Your task to perform on an android device: What's the news in Puerto Rico? Image 0: 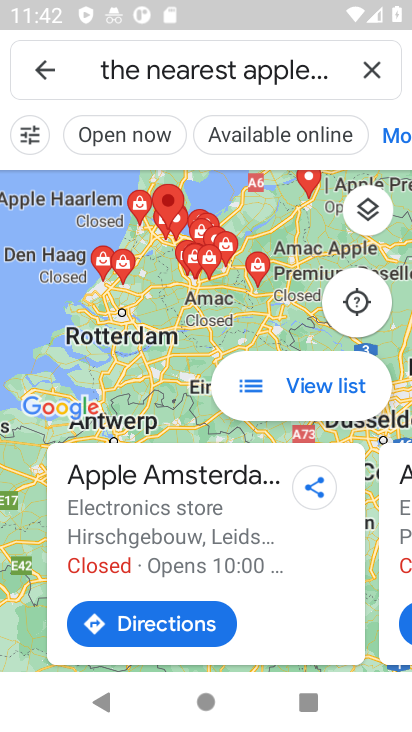
Step 0: press home button
Your task to perform on an android device: What's the news in Puerto Rico? Image 1: 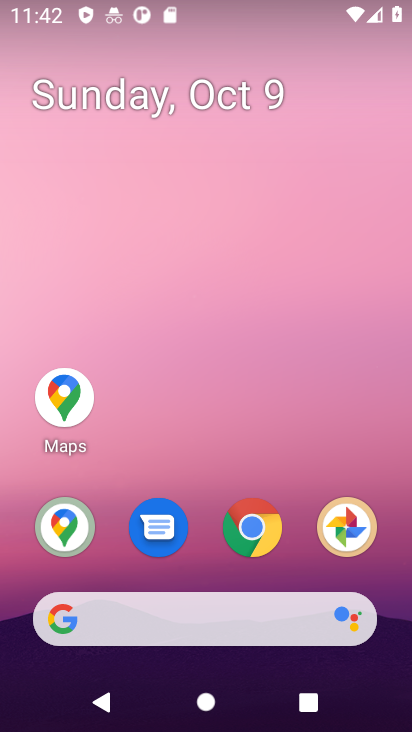
Step 1: click (262, 544)
Your task to perform on an android device: What's the news in Puerto Rico? Image 2: 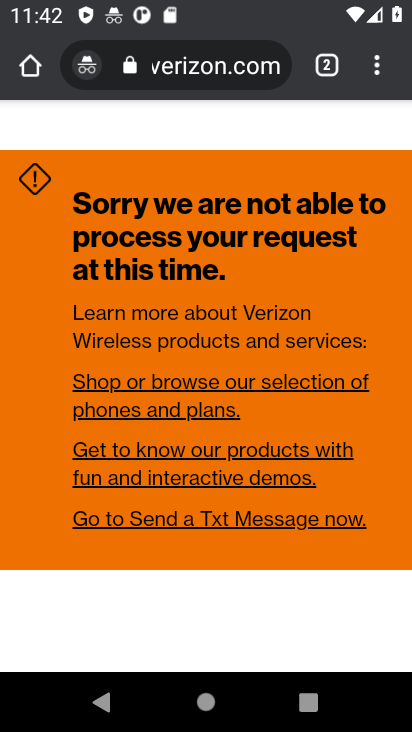
Step 2: click (191, 69)
Your task to perform on an android device: What's the news in Puerto Rico? Image 3: 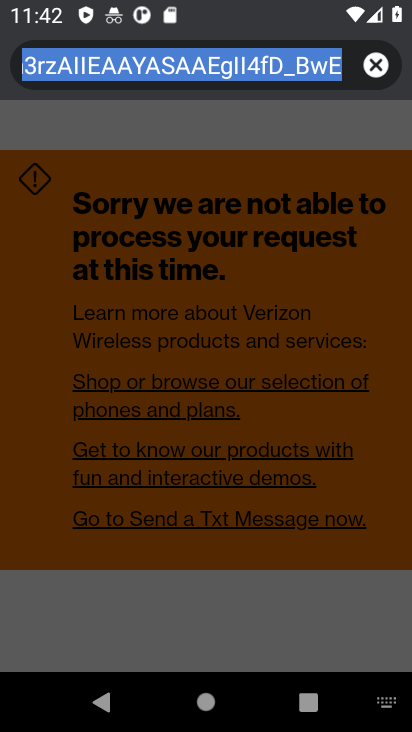
Step 3: type "the news in Puerto Rico?"
Your task to perform on an android device: What's the news in Puerto Rico? Image 4: 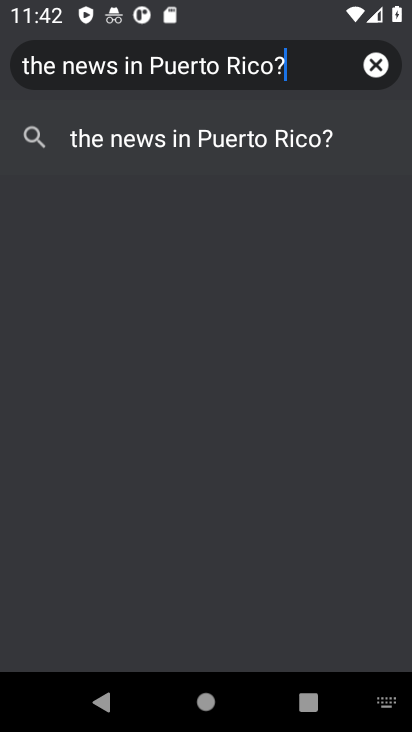
Step 4: click (163, 152)
Your task to perform on an android device: What's the news in Puerto Rico? Image 5: 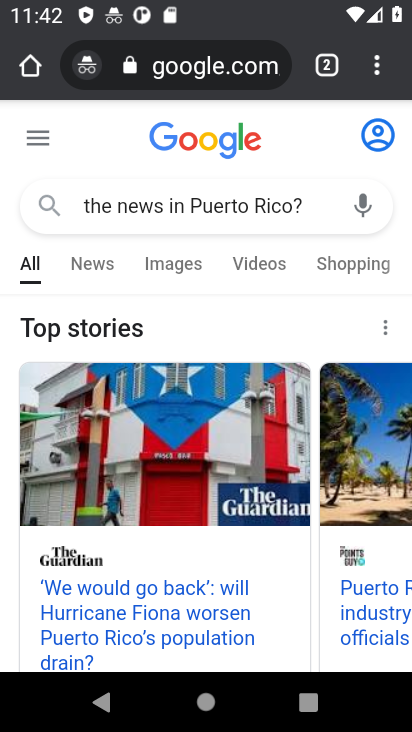
Step 5: task complete